Your task to perform on an android device: Open notification settings Image 0: 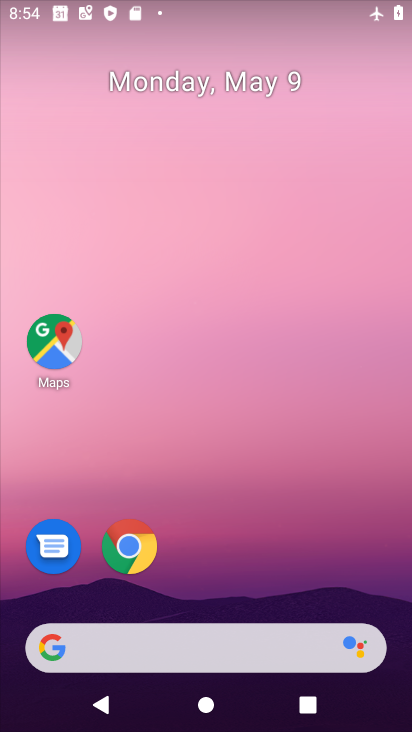
Step 0: drag from (249, 704) to (146, 61)
Your task to perform on an android device: Open notification settings Image 1: 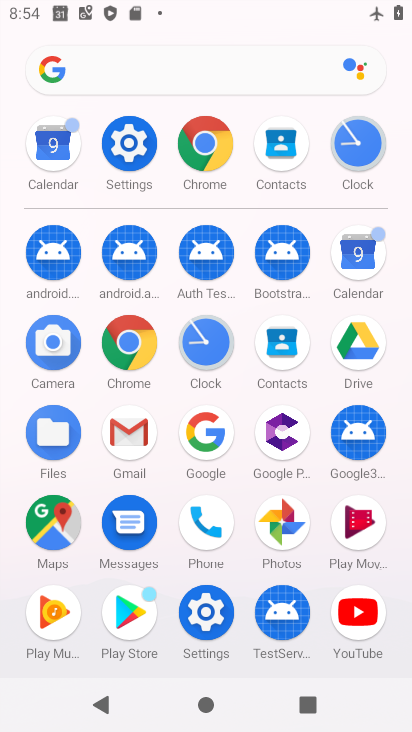
Step 1: click (137, 150)
Your task to perform on an android device: Open notification settings Image 2: 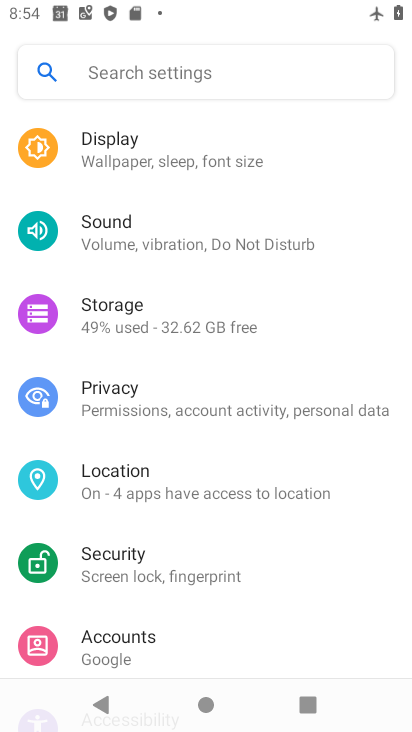
Step 2: drag from (325, 155) to (322, 584)
Your task to perform on an android device: Open notification settings Image 3: 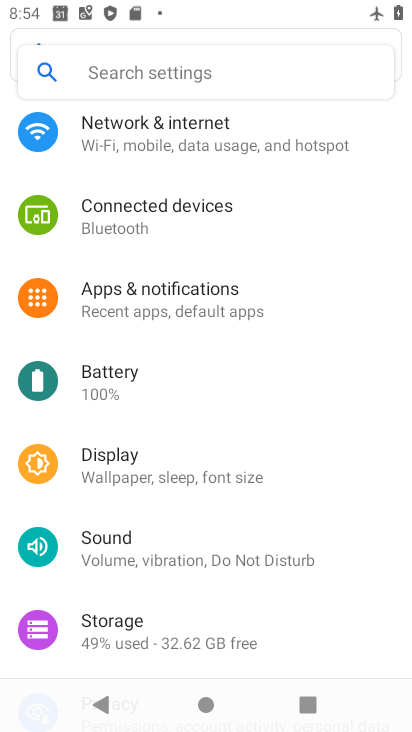
Step 3: click (206, 287)
Your task to perform on an android device: Open notification settings Image 4: 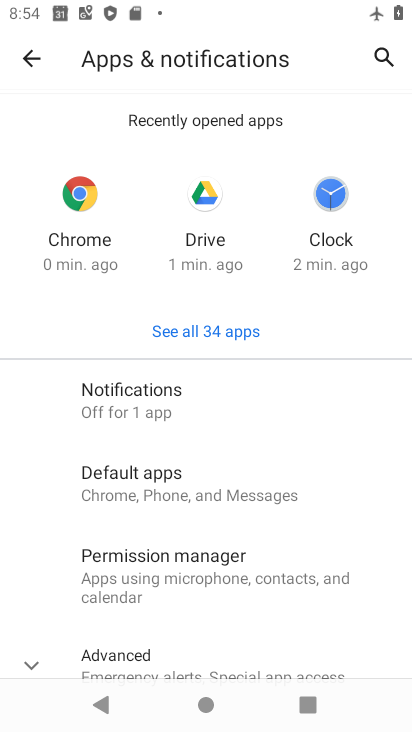
Step 4: task complete